Your task to perform on an android device: open a new tab in the chrome app Image 0: 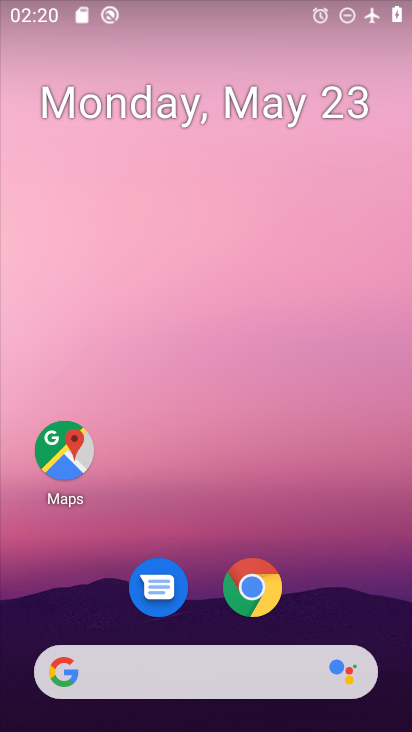
Step 0: click (267, 579)
Your task to perform on an android device: open a new tab in the chrome app Image 1: 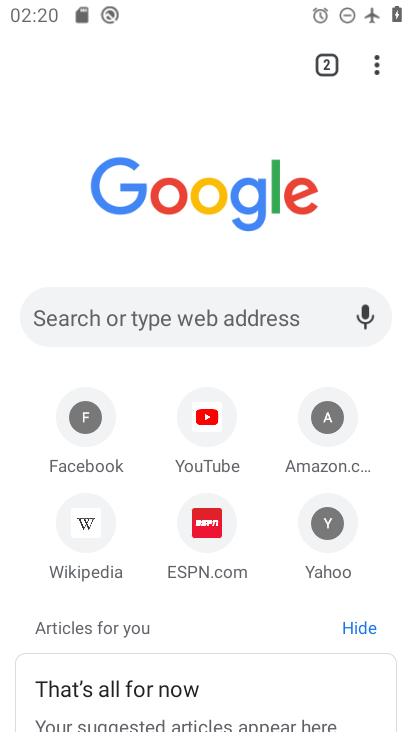
Step 1: click (380, 76)
Your task to perform on an android device: open a new tab in the chrome app Image 2: 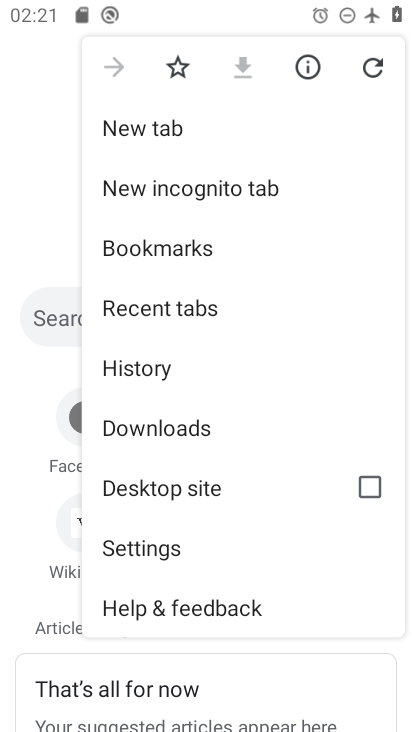
Step 2: click (68, 101)
Your task to perform on an android device: open a new tab in the chrome app Image 3: 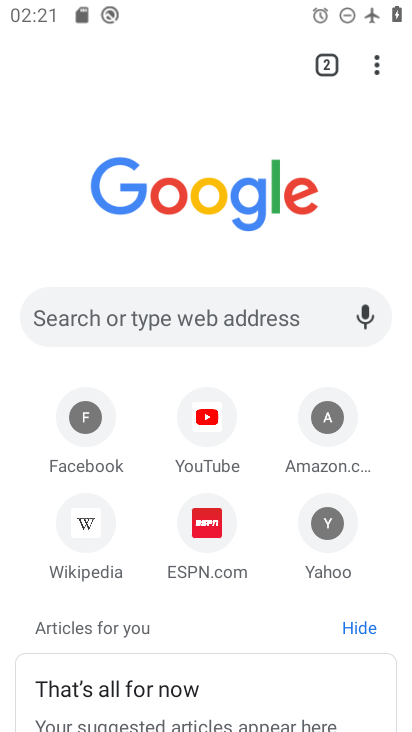
Step 3: click (68, 101)
Your task to perform on an android device: open a new tab in the chrome app Image 4: 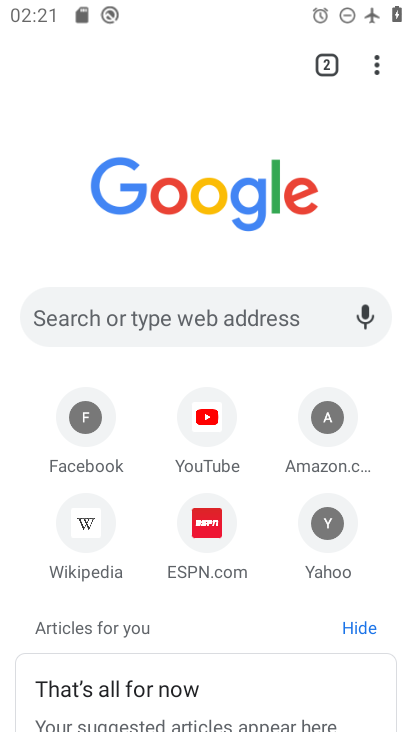
Step 4: click (327, 70)
Your task to perform on an android device: open a new tab in the chrome app Image 5: 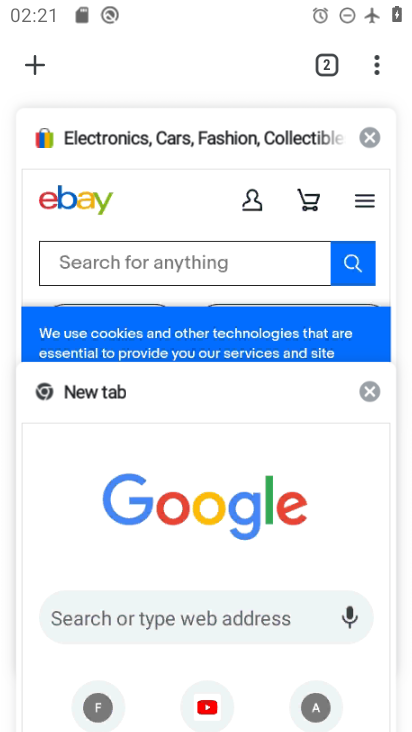
Step 5: click (48, 78)
Your task to perform on an android device: open a new tab in the chrome app Image 6: 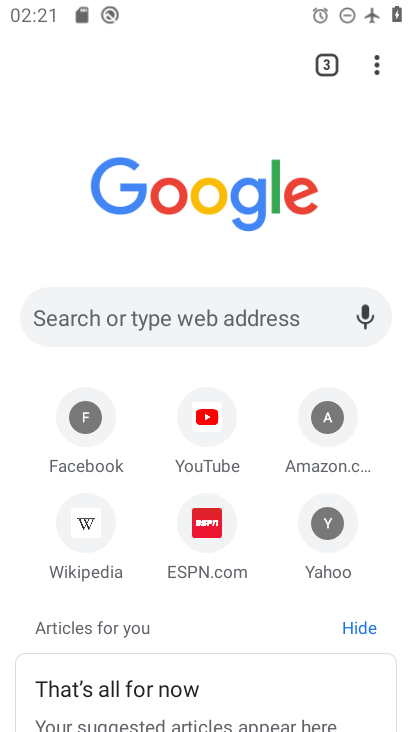
Step 6: task complete